Your task to perform on an android device: check the backup settings in the google photos Image 0: 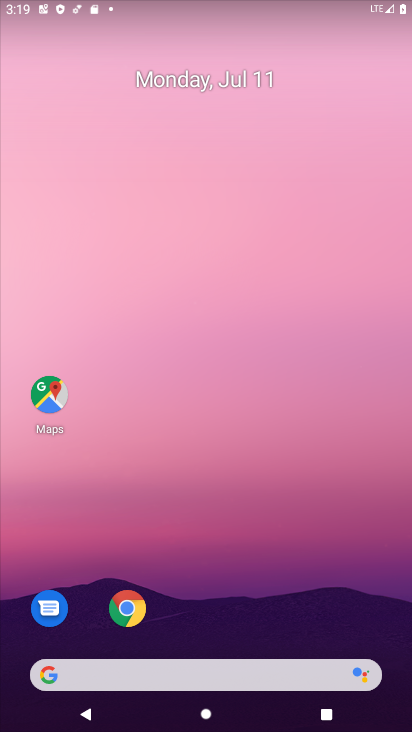
Step 0: drag from (229, 616) to (276, 31)
Your task to perform on an android device: check the backup settings in the google photos Image 1: 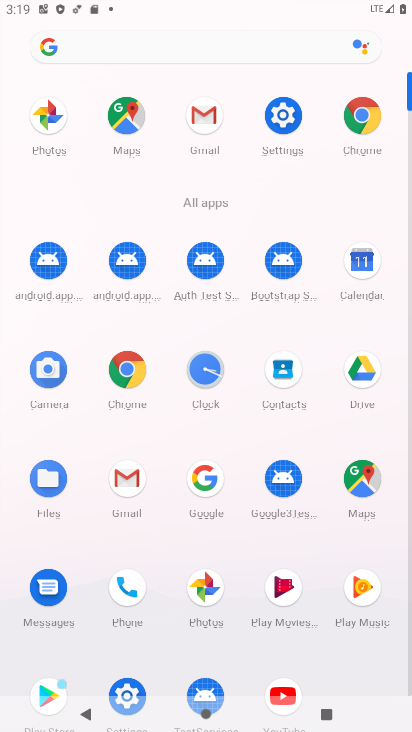
Step 1: click (49, 105)
Your task to perform on an android device: check the backup settings in the google photos Image 2: 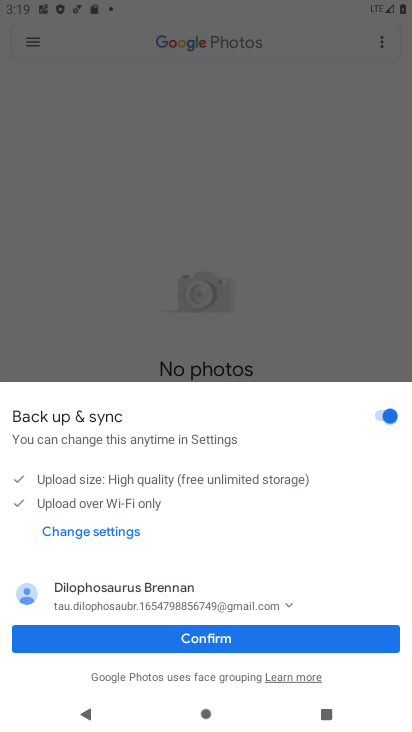
Step 2: click (190, 504)
Your task to perform on an android device: check the backup settings in the google photos Image 3: 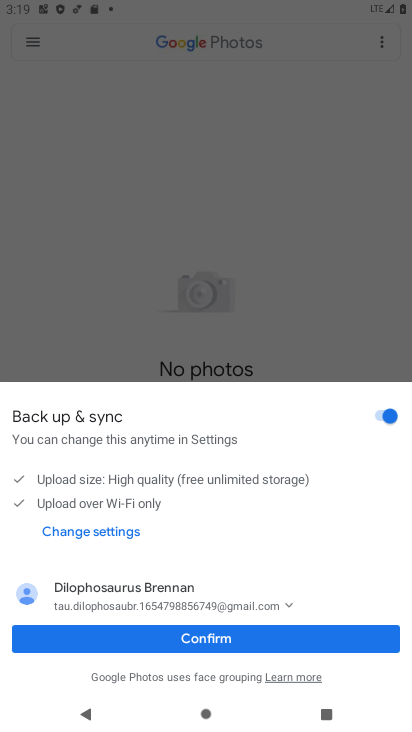
Step 3: click (83, 538)
Your task to perform on an android device: check the backup settings in the google photos Image 4: 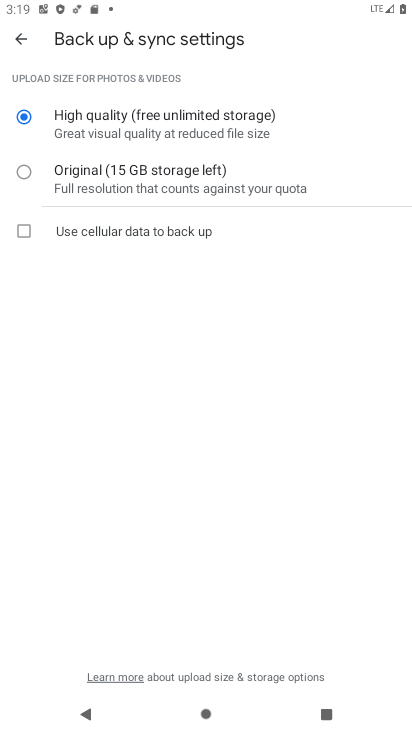
Step 4: task complete